Your task to perform on an android device: Open Amazon Image 0: 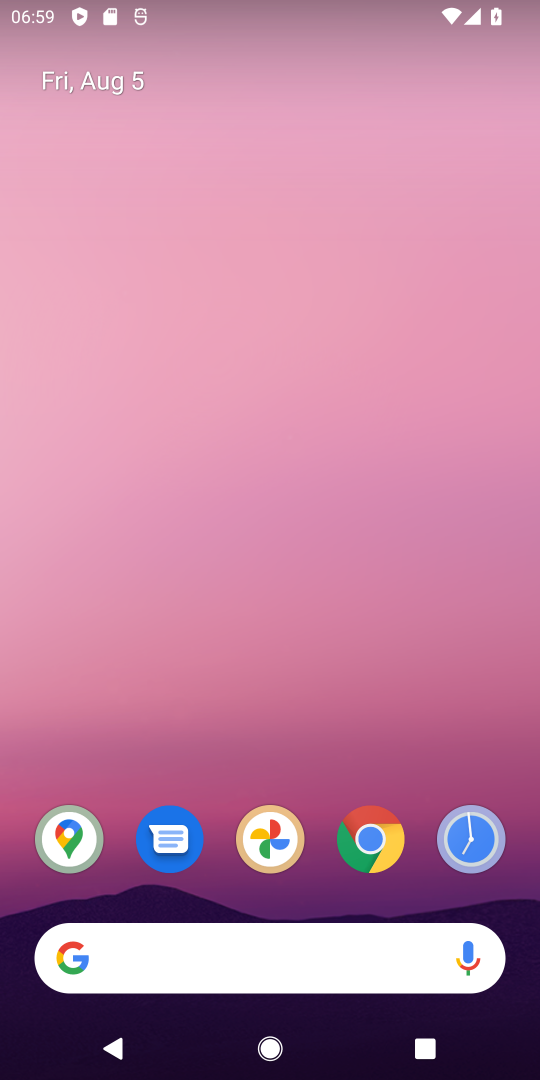
Step 0: click (374, 835)
Your task to perform on an android device: Open Amazon Image 1: 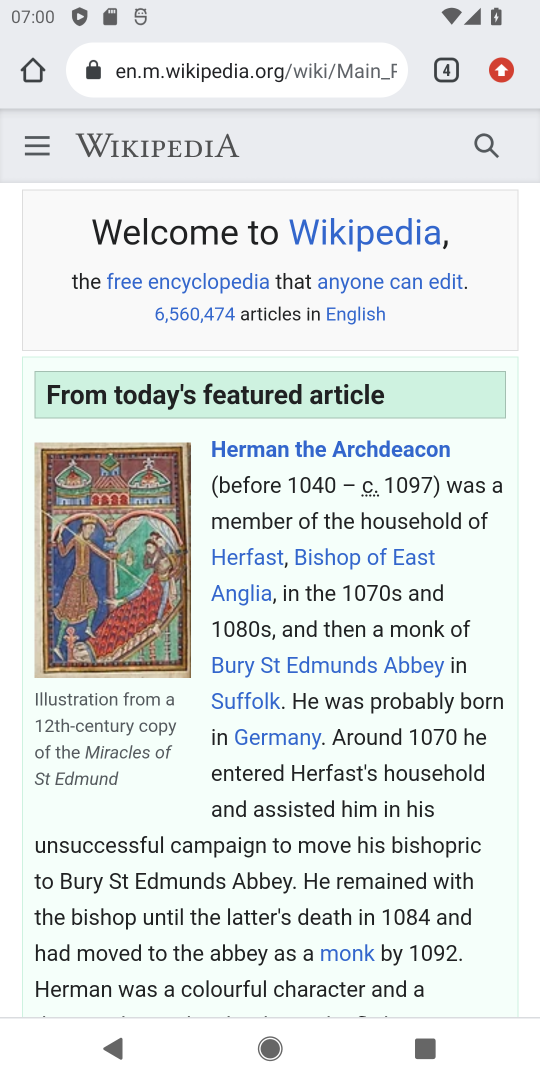
Step 1: click (505, 79)
Your task to perform on an android device: Open Amazon Image 2: 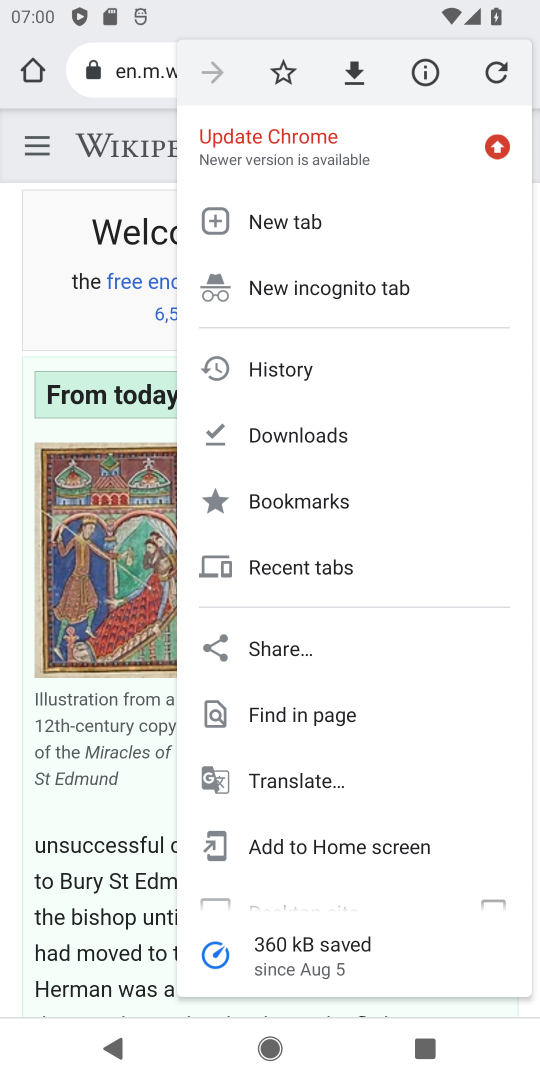
Step 2: click (299, 228)
Your task to perform on an android device: Open Amazon Image 3: 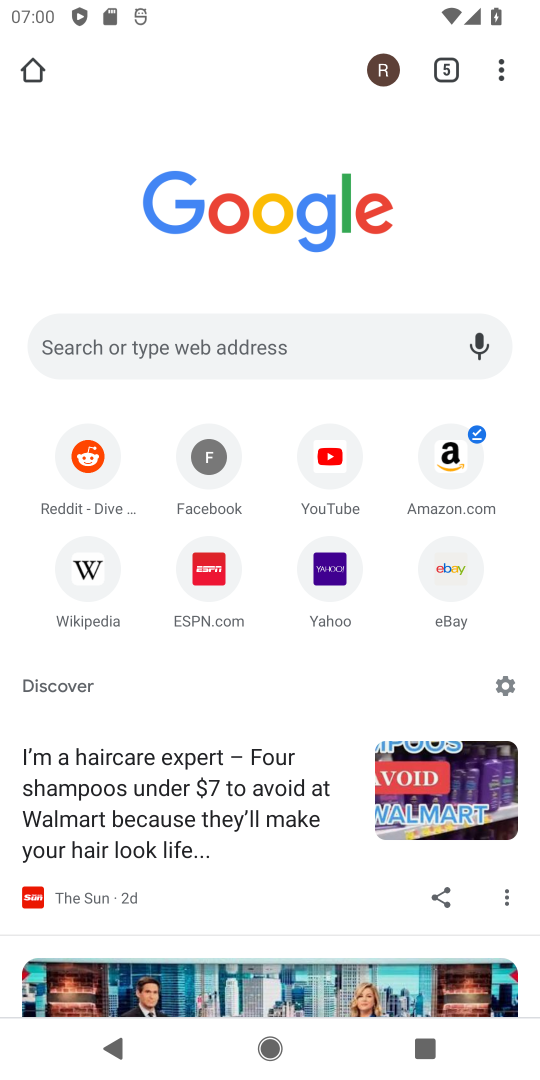
Step 3: click (458, 458)
Your task to perform on an android device: Open Amazon Image 4: 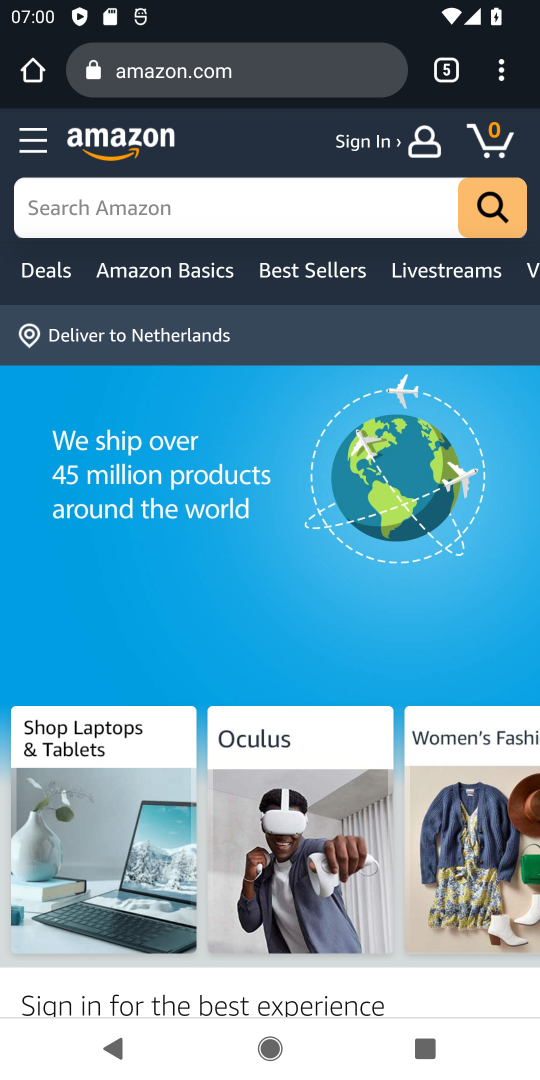
Step 4: task complete